Your task to perform on an android device: Go to Wikipedia Image 0: 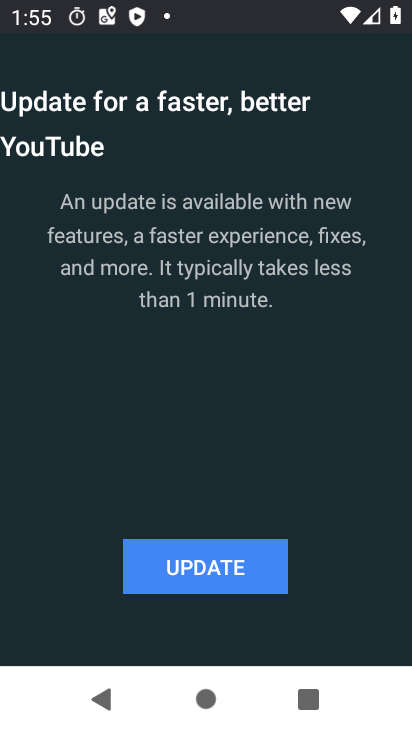
Step 0: press home button
Your task to perform on an android device: Go to Wikipedia Image 1: 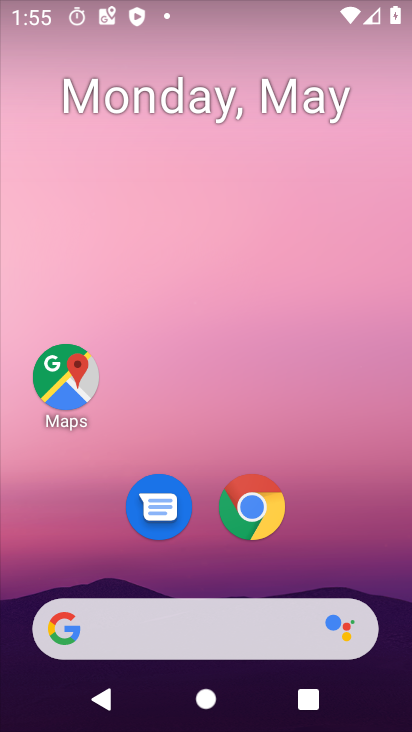
Step 1: drag from (349, 511) to (322, 51)
Your task to perform on an android device: Go to Wikipedia Image 2: 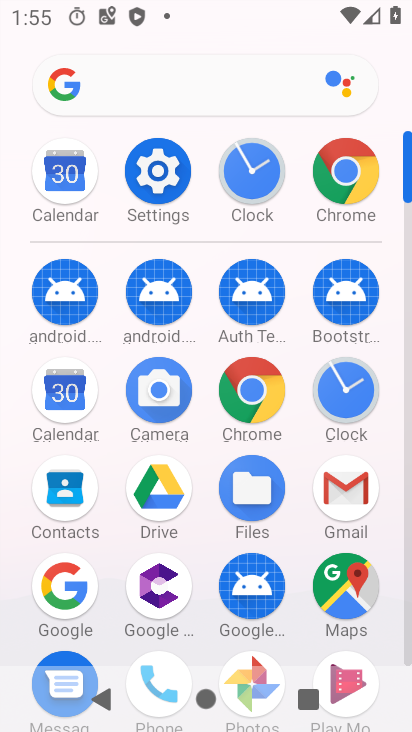
Step 2: click (276, 399)
Your task to perform on an android device: Go to Wikipedia Image 3: 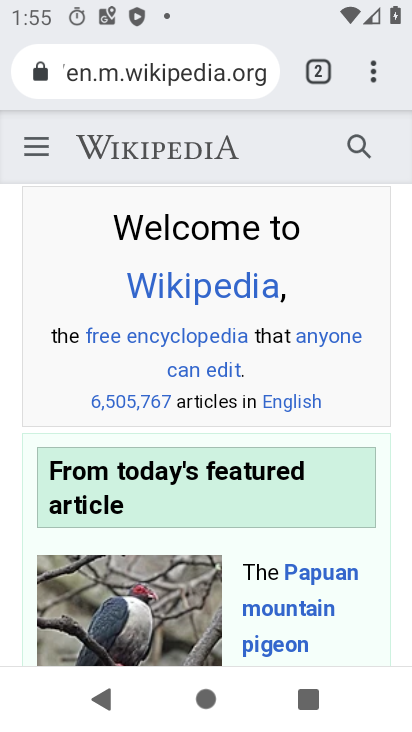
Step 3: click (305, 83)
Your task to perform on an android device: Go to Wikipedia Image 4: 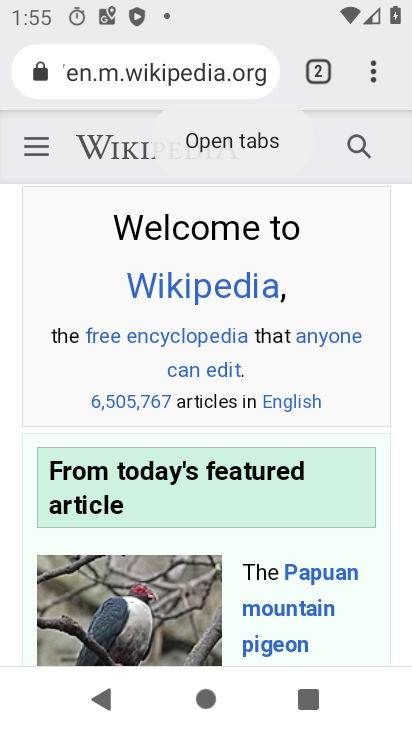
Step 4: click (329, 80)
Your task to perform on an android device: Go to Wikipedia Image 5: 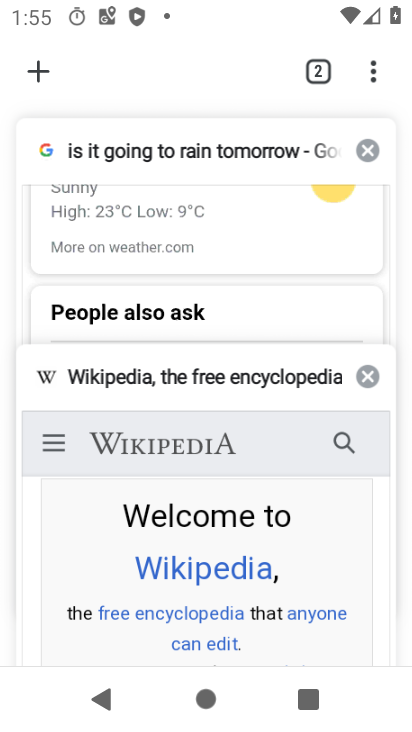
Step 5: click (45, 61)
Your task to perform on an android device: Go to Wikipedia Image 6: 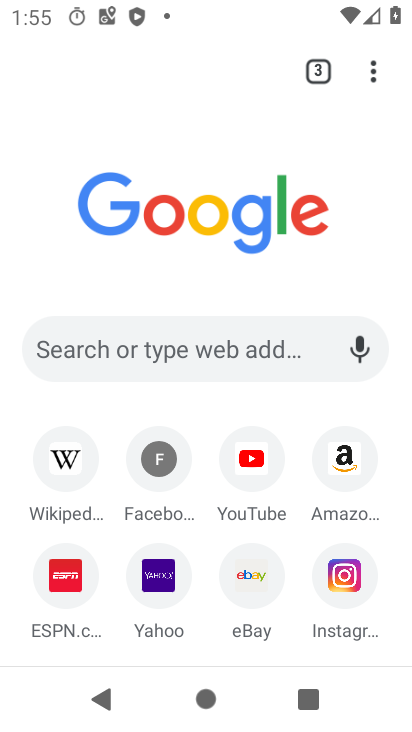
Step 6: click (75, 458)
Your task to perform on an android device: Go to Wikipedia Image 7: 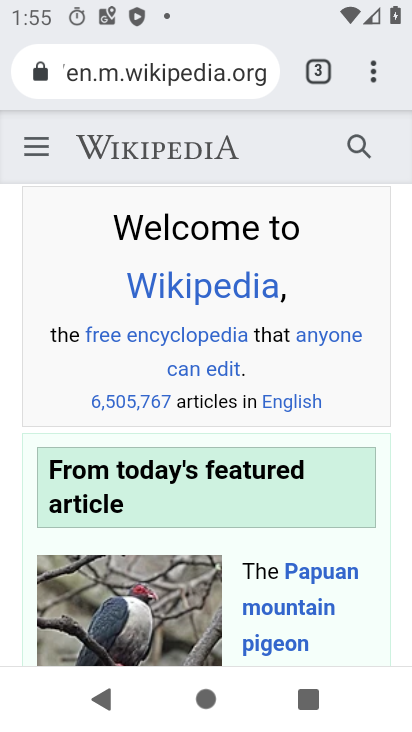
Step 7: task complete